Your task to perform on an android device: open wifi settings Image 0: 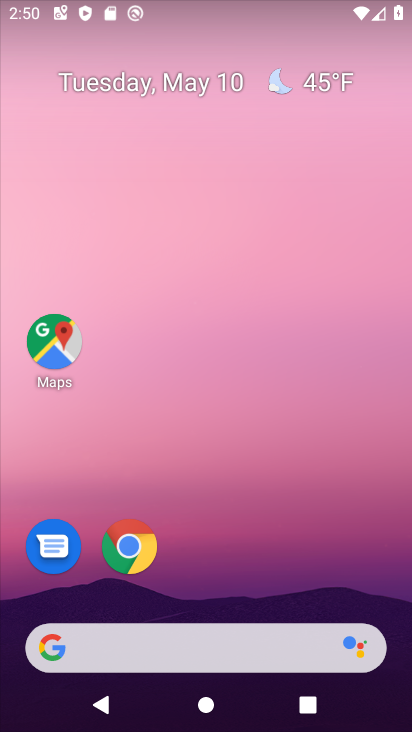
Step 0: drag from (232, 504) to (152, 4)
Your task to perform on an android device: open wifi settings Image 1: 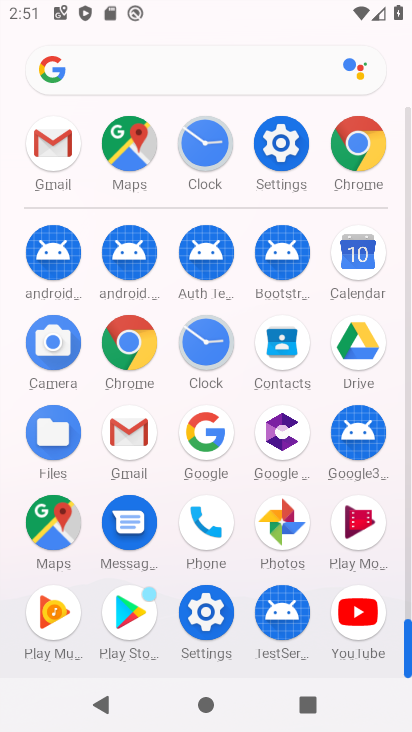
Step 1: click (281, 139)
Your task to perform on an android device: open wifi settings Image 2: 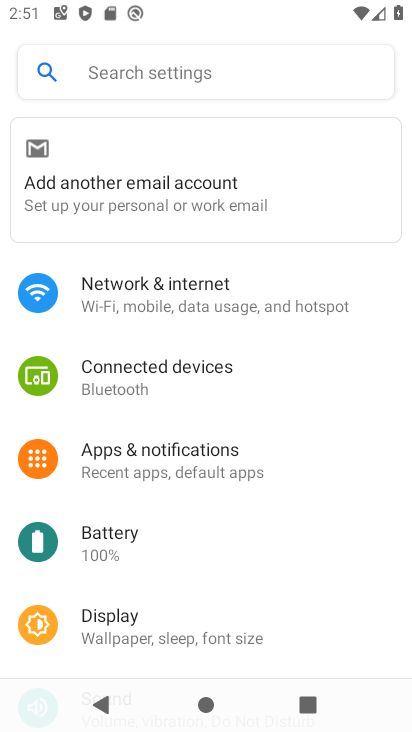
Step 2: click (230, 291)
Your task to perform on an android device: open wifi settings Image 3: 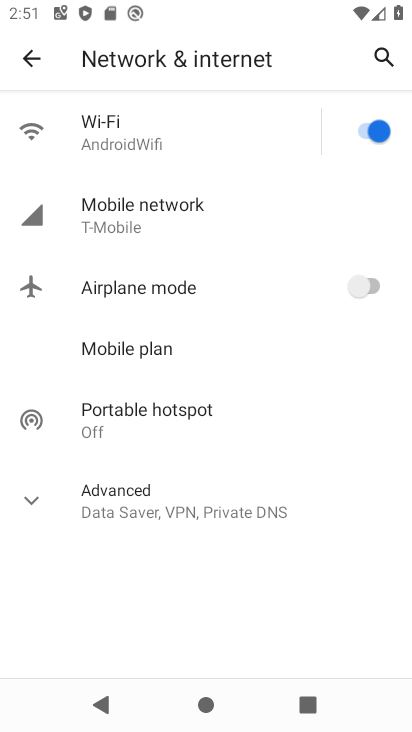
Step 3: click (145, 121)
Your task to perform on an android device: open wifi settings Image 4: 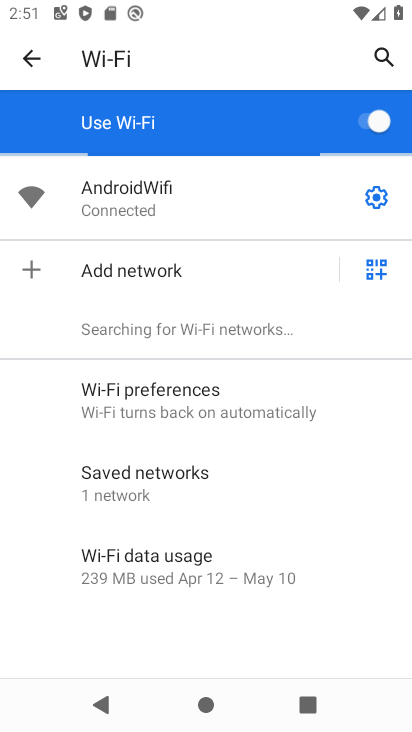
Step 4: task complete